Your task to perform on an android device: visit the assistant section in the google photos Image 0: 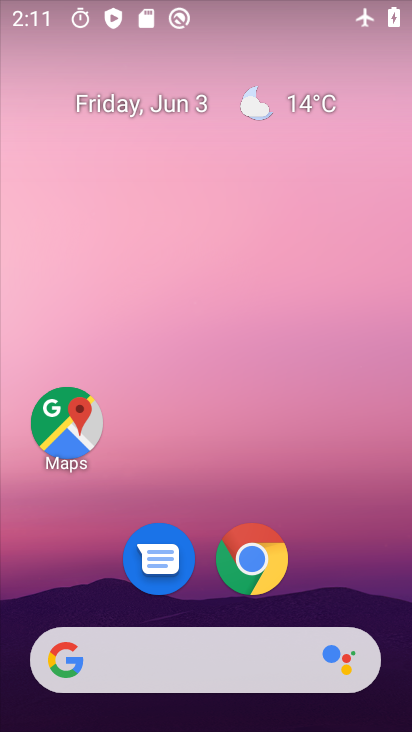
Step 0: drag from (200, 552) to (154, 18)
Your task to perform on an android device: visit the assistant section in the google photos Image 1: 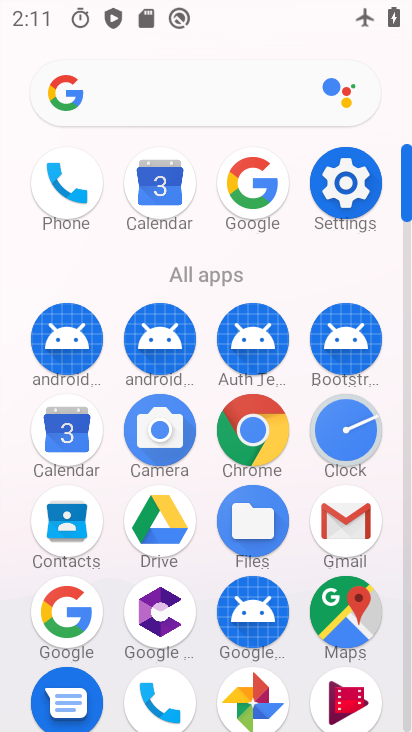
Step 1: click (234, 676)
Your task to perform on an android device: visit the assistant section in the google photos Image 2: 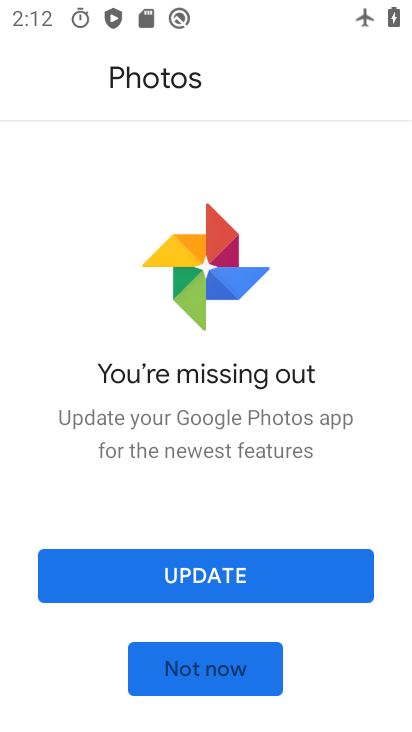
Step 2: click (233, 677)
Your task to perform on an android device: visit the assistant section in the google photos Image 3: 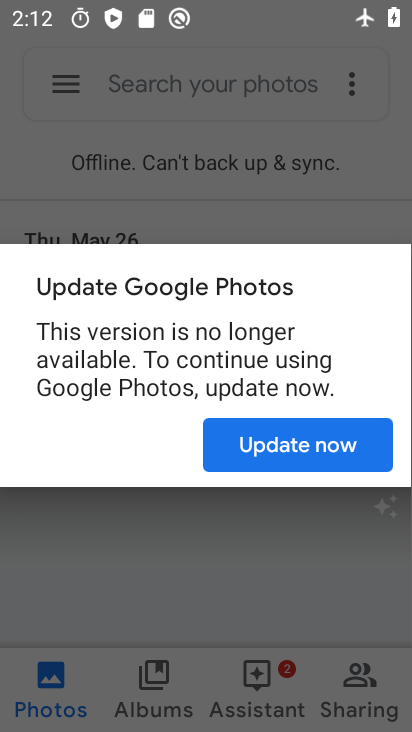
Step 3: click (299, 451)
Your task to perform on an android device: visit the assistant section in the google photos Image 4: 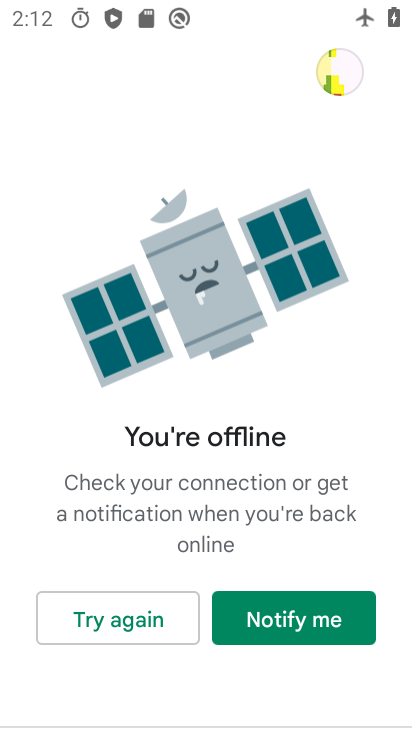
Step 4: click (148, 610)
Your task to perform on an android device: visit the assistant section in the google photos Image 5: 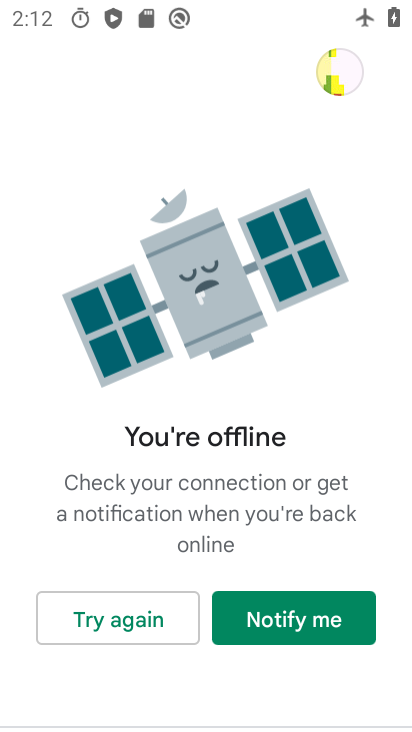
Step 5: task complete